Your task to perform on an android device: Clear the shopping cart on target. Image 0: 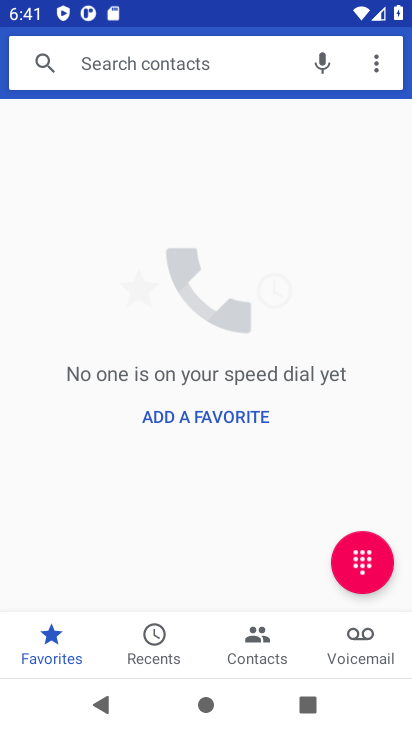
Step 0: press home button
Your task to perform on an android device: Clear the shopping cart on target. Image 1: 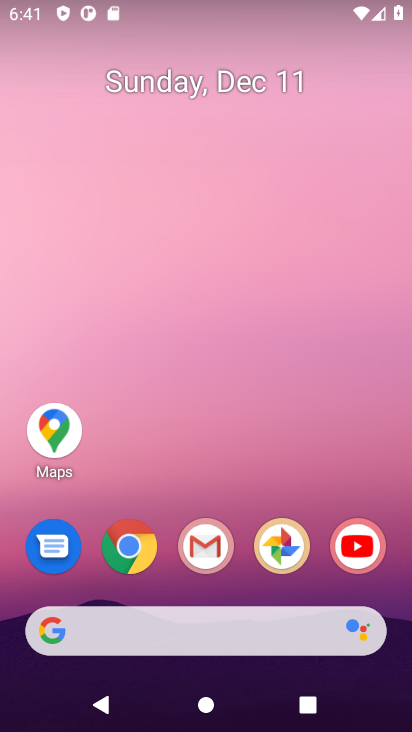
Step 1: click (127, 550)
Your task to perform on an android device: Clear the shopping cart on target. Image 2: 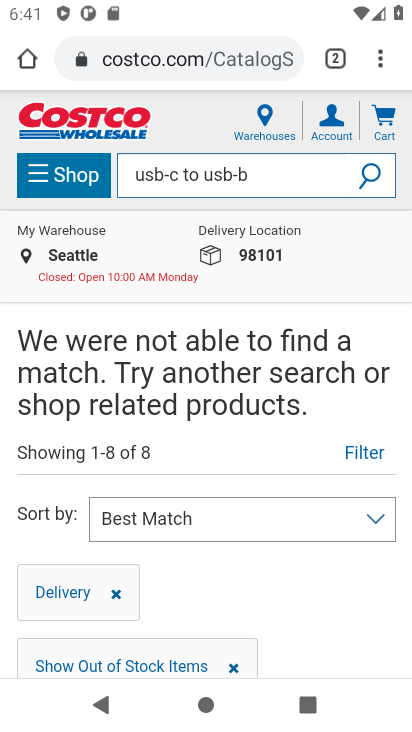
Step 2: click (200, 56)
Your task to perform on an android device: Clear the shopping cart on target. Image 3: 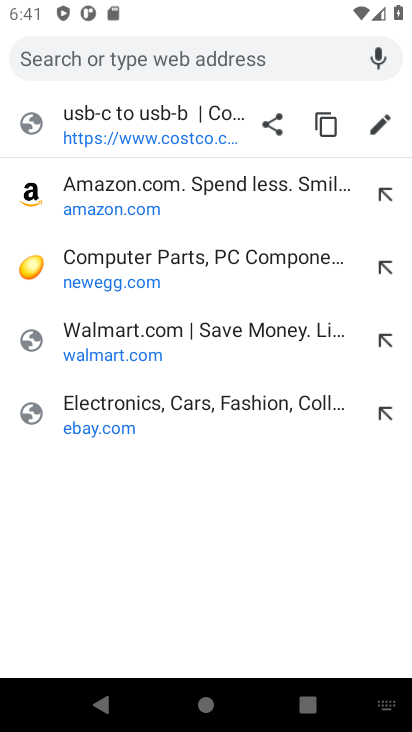
Step 3: type "target.com"
Your task to perform on an android device: Clear the shopping cart on target. Image 4: 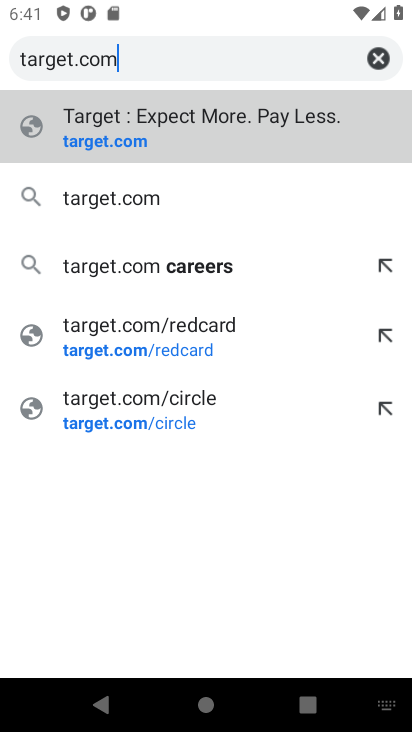
Step 4: click (124, 141)
Your task to perform on an android device: Clear the shopping cart on target. Image 5: 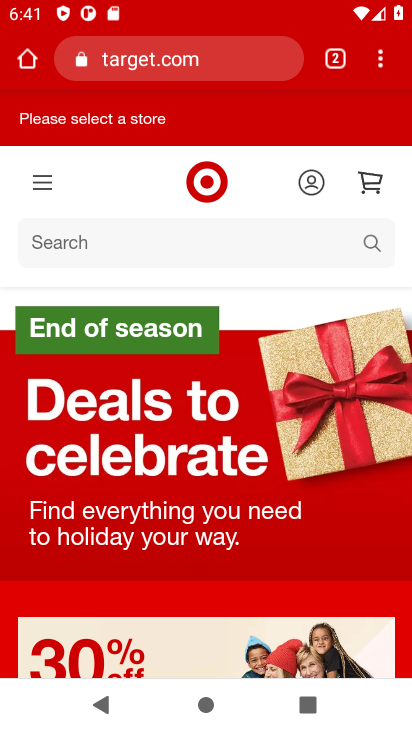
Step 5: click (367, 189)
Your task to perform on an android device: Clear the shopping cart on target. Image 6: 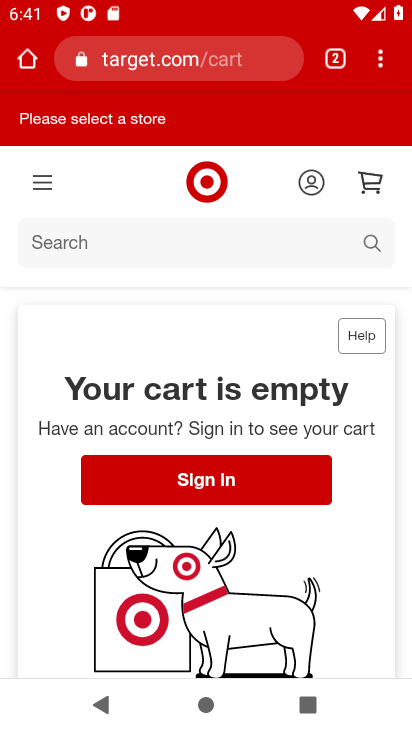
Step 6: task complete